Your task to perform on an android device: Go to notification settings Image 0: 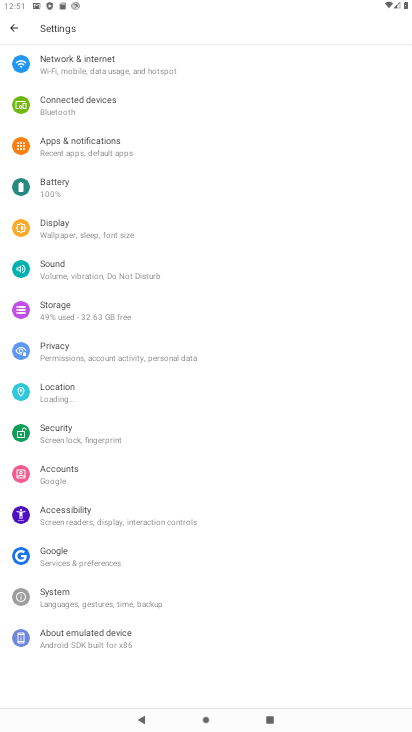
Step 0: click (119, 146)
Your task to perform on an android device: Go to notification settings Image 1: 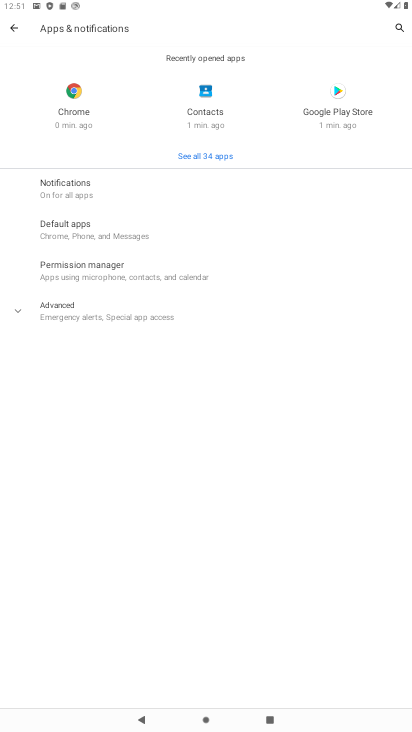
Step 1: click (89, 180)
Your task to perform on an android device: Go to notification settings Image 2: 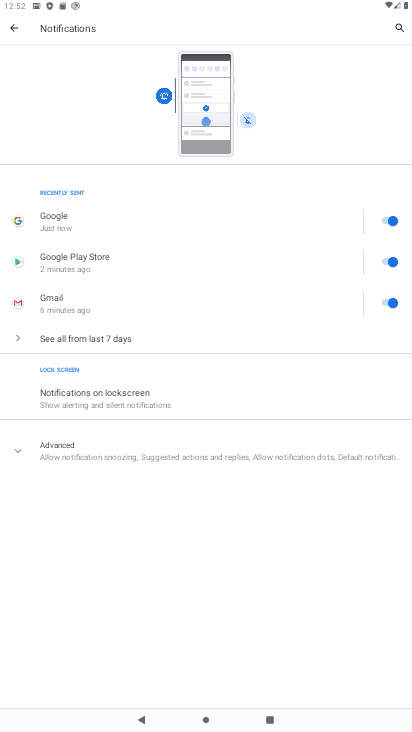
Step 2: task complete